Your task to perform on an android device: Open Google Image 0: 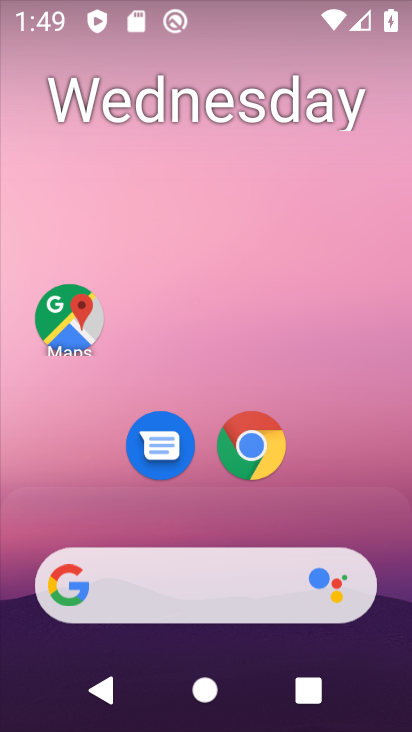
Step 0: click (119, 586)
Your task to perform on an android device: Open Google Image 1: 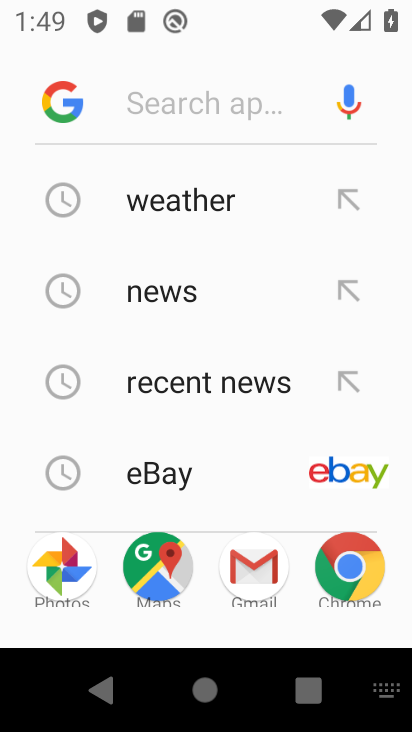
Step 1: click (56, 94)
Your task to perform on an android device: Open Google Image 2: 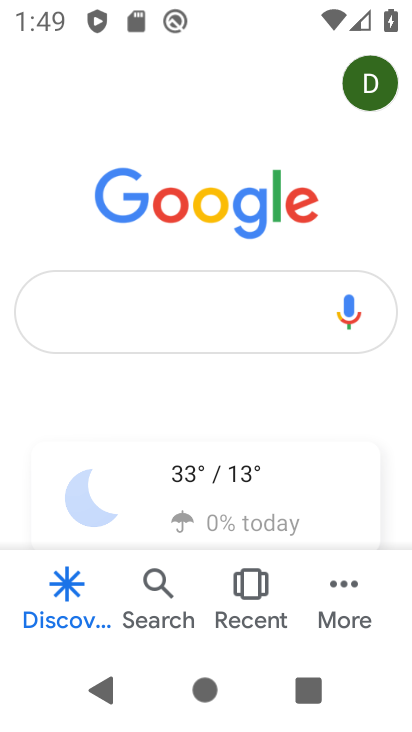
Step 2: task complete